Your task to perform on an android device: find which apps use the phone's location Image 0: 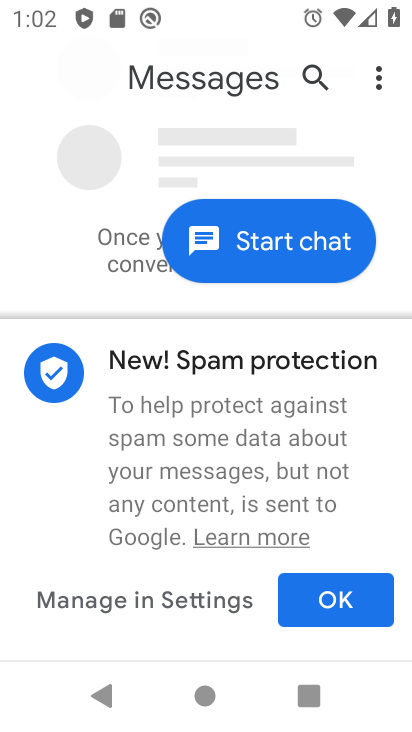
Step 0: drag from (389, 550) to (355, 294)
Your task to perform on an android device: find which apps use the phone's location Image 1: 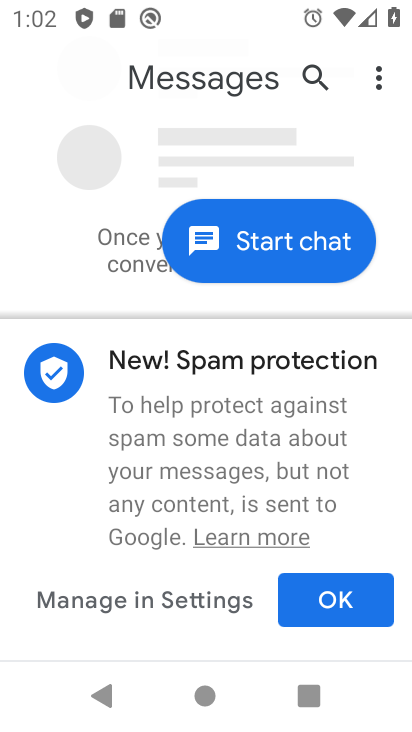
Step 1: press home button
Your task to perform on an android device: find which apps use the phone's location Image 2: 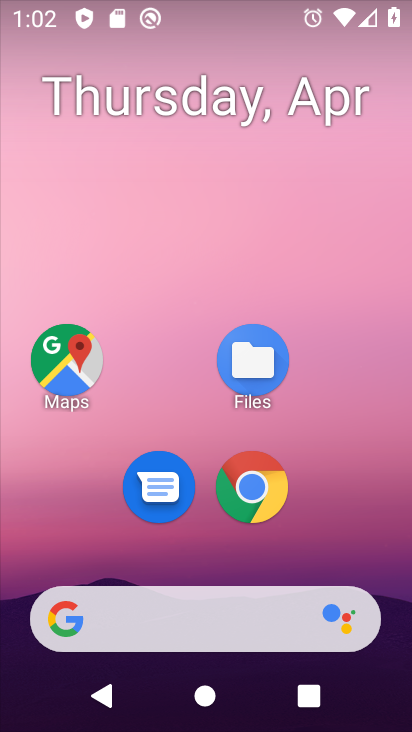
Step 2: drag from (372, 538) to (375, 172)
Your task to perform on an android device: find which apps use the phone's location Image 3: 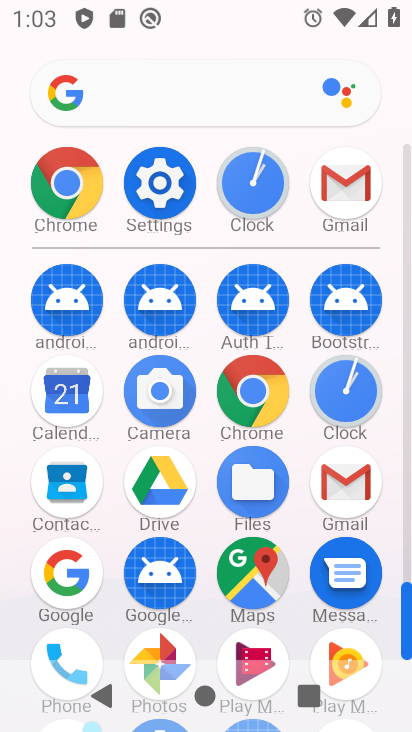
Step 3: click (184, 189)
Your task to perform on an android device: find which apps use the phone's location Image 4: 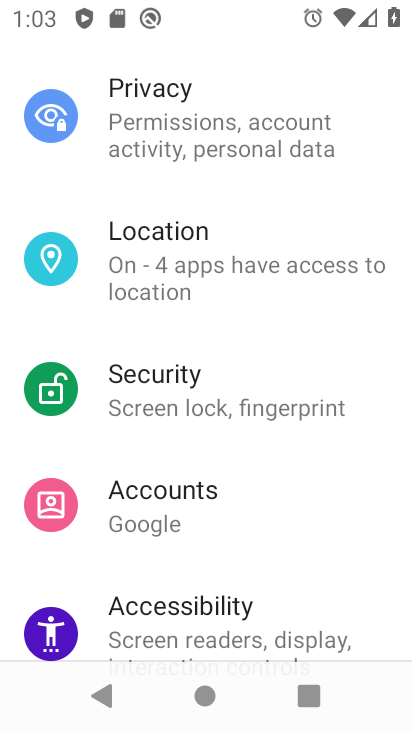
Step 4: click (183, 251)
Your task to perform on an android device: find which apps use the phone's location Image 5: 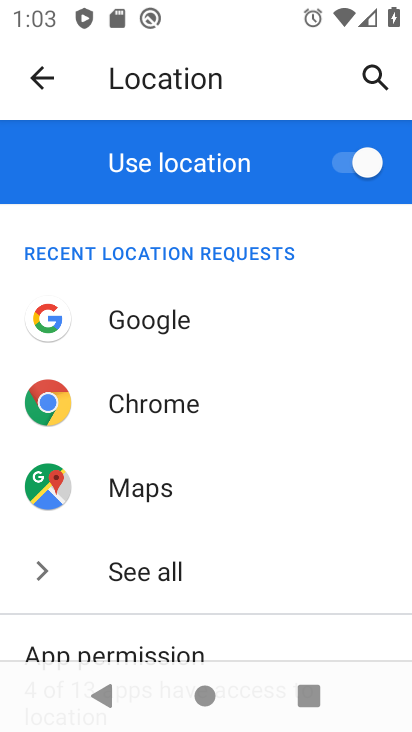
Step 5: task complete